Your task to perform on an android device: What is the recent news? Image 0: 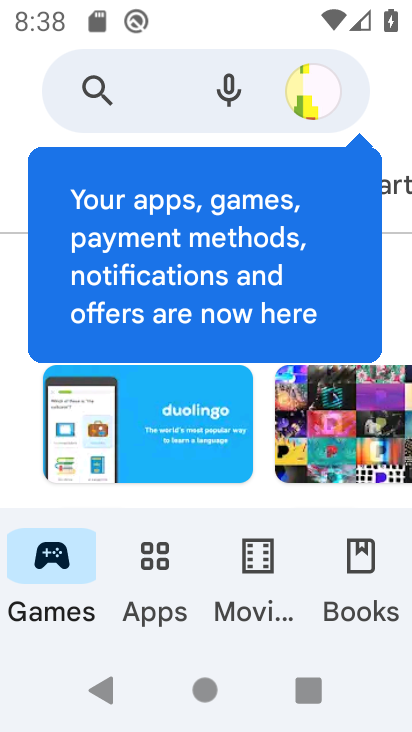
Step 0: press home button
Your task to perform on an android device: What is the recent news? Image 1: 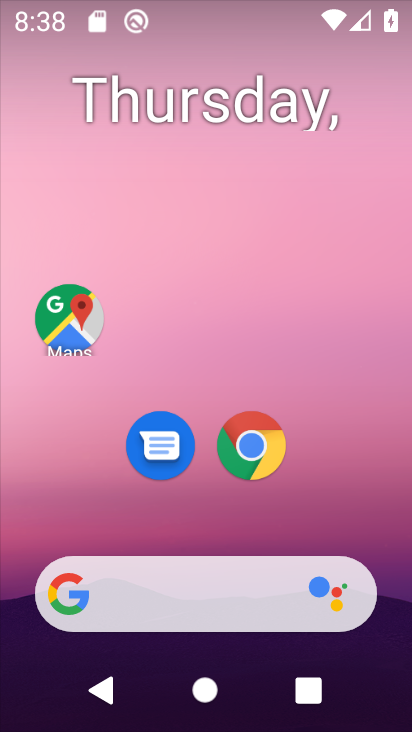
Step 1: click (251, 440)
Your task to perform on an android device: What is the recent news? Image 2: 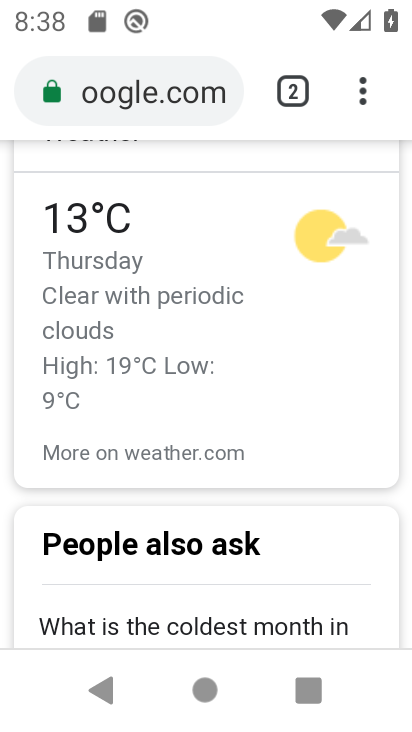
Step 2: click (297, 95)
Your task to perform on an android device: What is the recent news? Image 3: 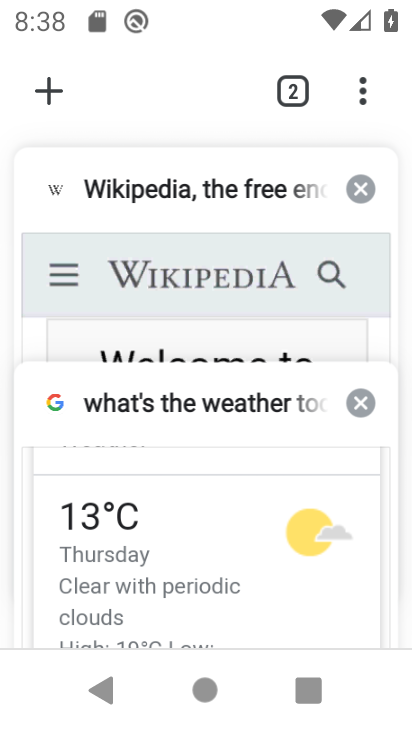
Step 3: click (51, 93)
Your task to perform on an android device: What is the recent news? Image 4: 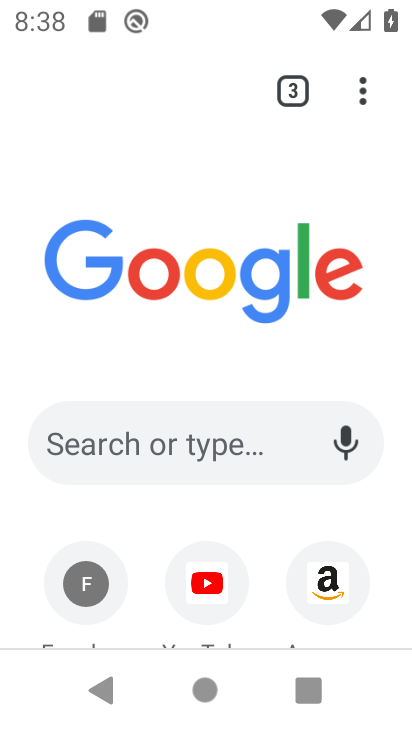
Step 4: click (136, 442)
Your task to perform on an android device: What is the recent news? Image 5: 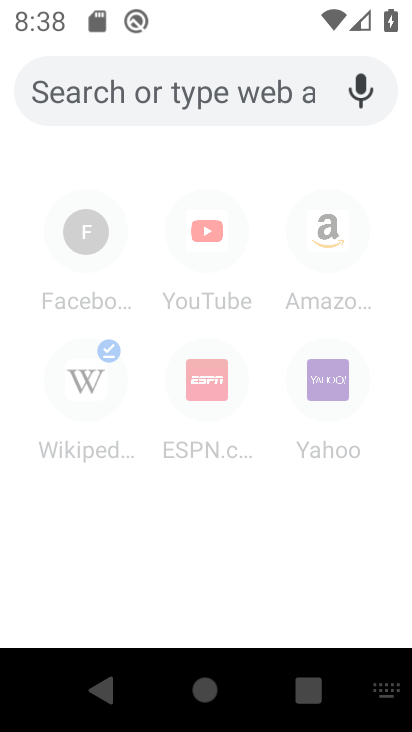
Step 5: type "recent news"
Your task to perform on an android device: What is the recent news? Image 6: 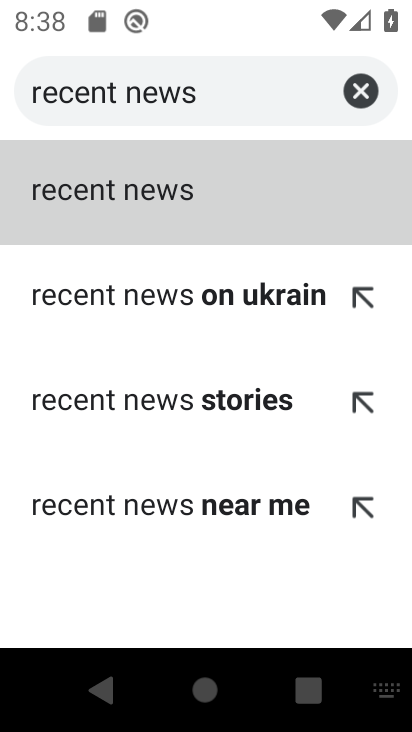
Step 6: click (156, 190)
Your task to perform on an android device: What is the recent news? Image 7: 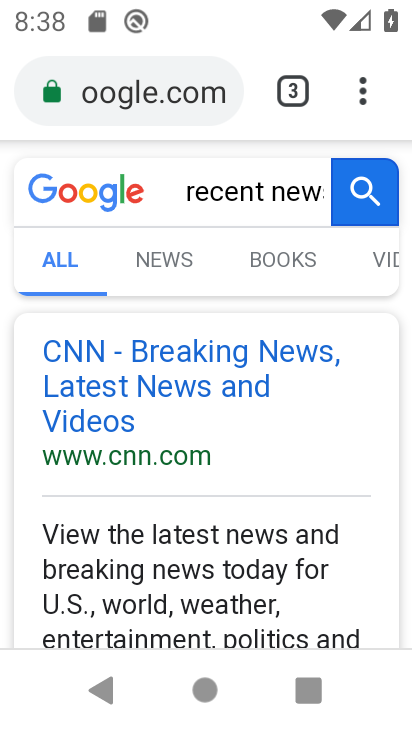
Step 7: drag from (159, 549) to (174, 363)
Your task to perform on an android device: What is the recent news? Image 8: 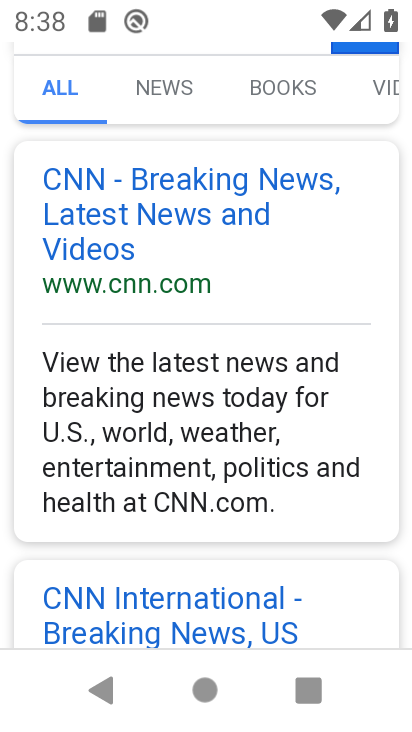
Step 8: click (159, 85)
Your task to perform on an android device: What is the recent news? Image 9: 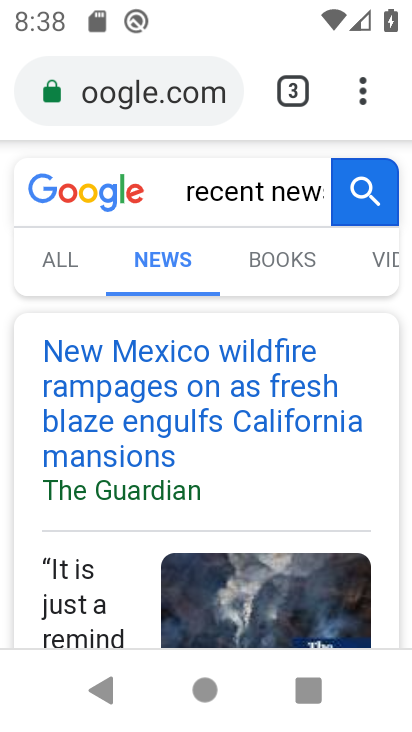
Step 9: task complete